Your task to perform on an android device: show emergency info Image 0: 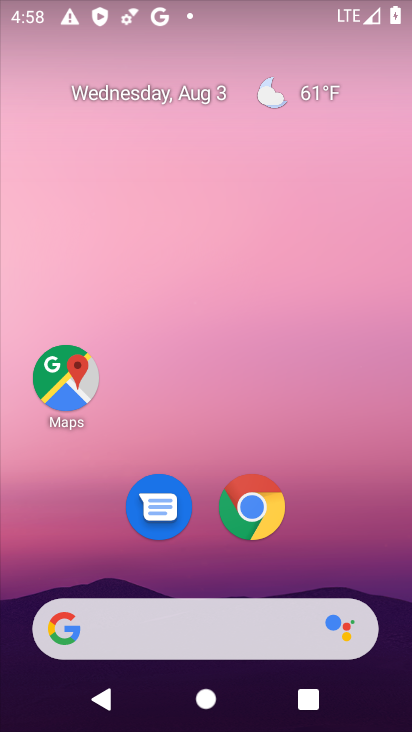
Step 0: drag from (342, 569) to (357, 66)
Your task to perform on an android device: show emergency info Image 1: 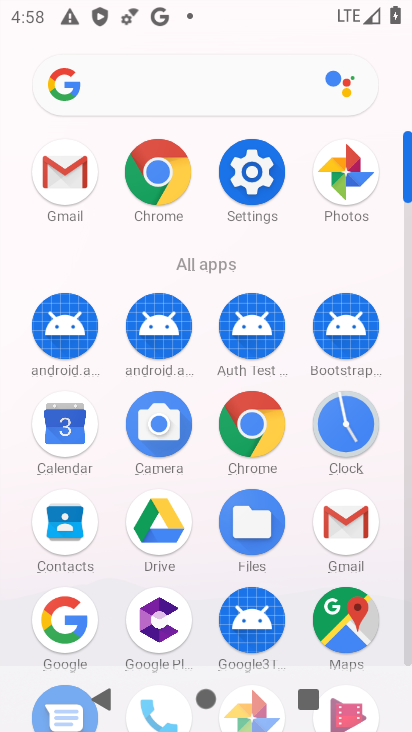
Step 1: click (252, 171)
Your task to perform on an android device: show emergency info Image 2: 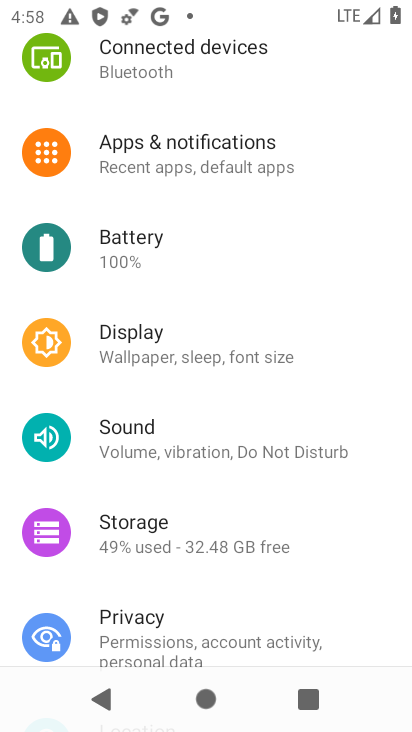
Step 2: drag from (295, 552) to (288, 79)
Your task to perform on an android device: show emergency info Image 3: 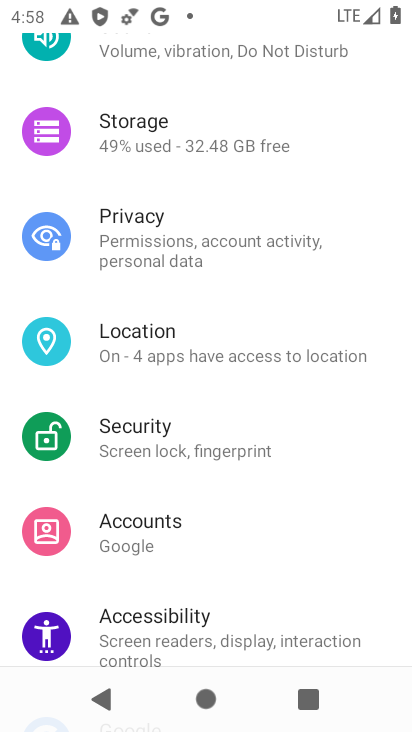
Step 3: drag from (248, 579) to (296, 99)
Your task to perform on an android device: show emergency info Image 4: 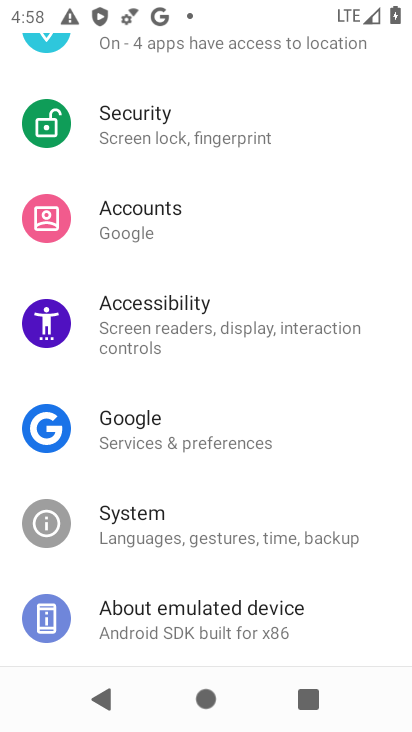
Step 4: click (219, 620)
Your task to perform on an android device: show emergency info Image 5: 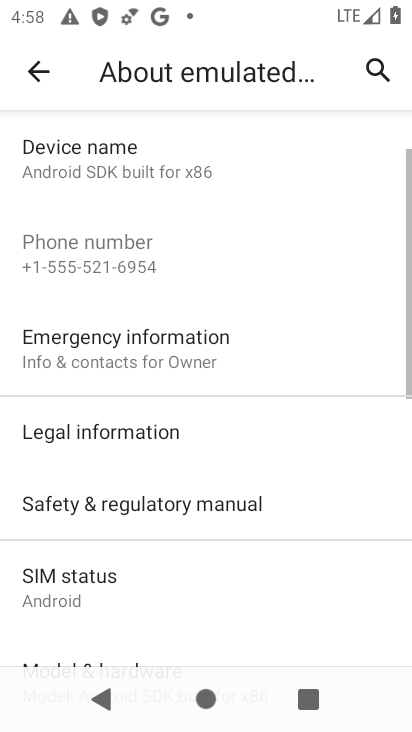
Step 5: click (126, 336)
Your task to perform on an android device: show emergency info Image 6: 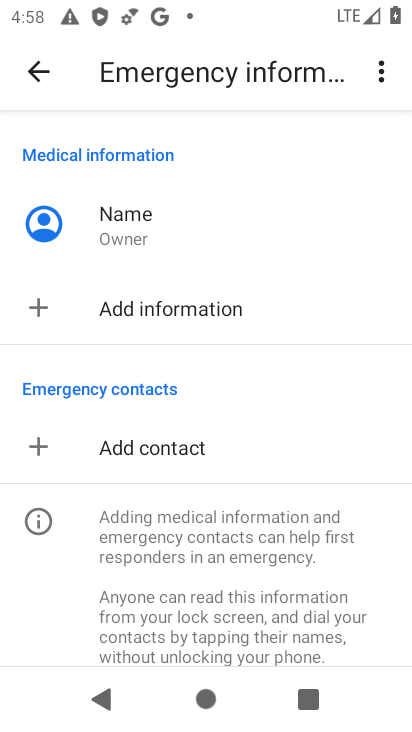
Step 6: task complete